Your task to perform on an android device: turn off airplane mode Image 0: 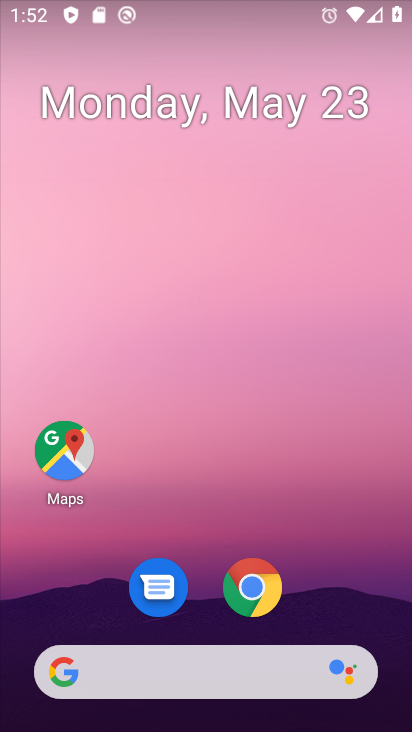
Step 0: drag from (362, 602) to (347, 103)
Your task to perform on an android device: turn off airplane mode Image 1: 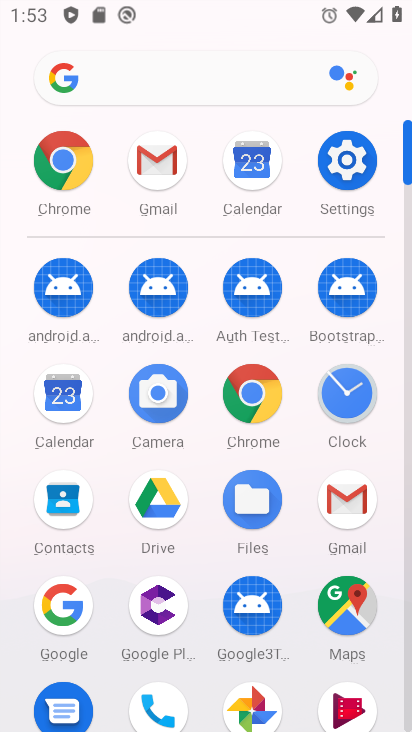
Step 1: click (323, 150)
Your task to perform on an android device: turn off airplane mode Image 2: 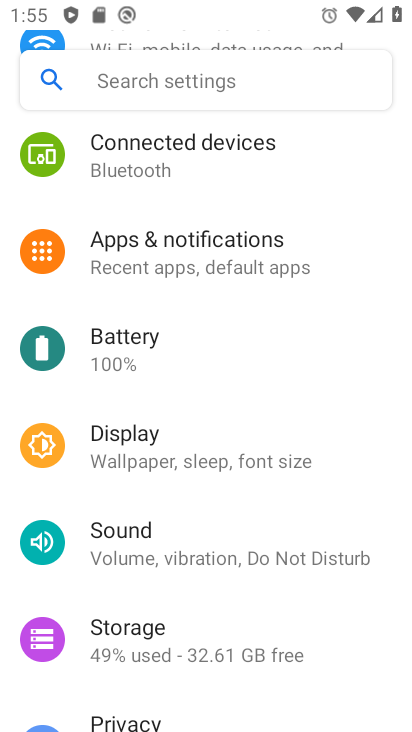
Step 2: task complete